Your task to perform on an android device: open app "Pinterest" (install if not already installed) Image 0: 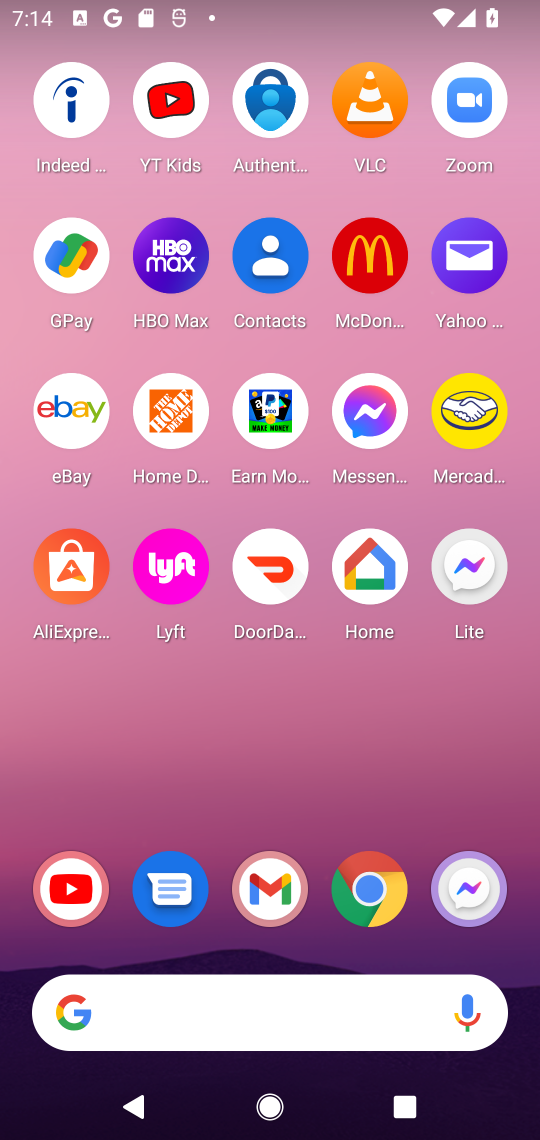
Step 0: press home button
Your task to perform on an android device: open app "Pinterest" (install if not already installed) Image 1: 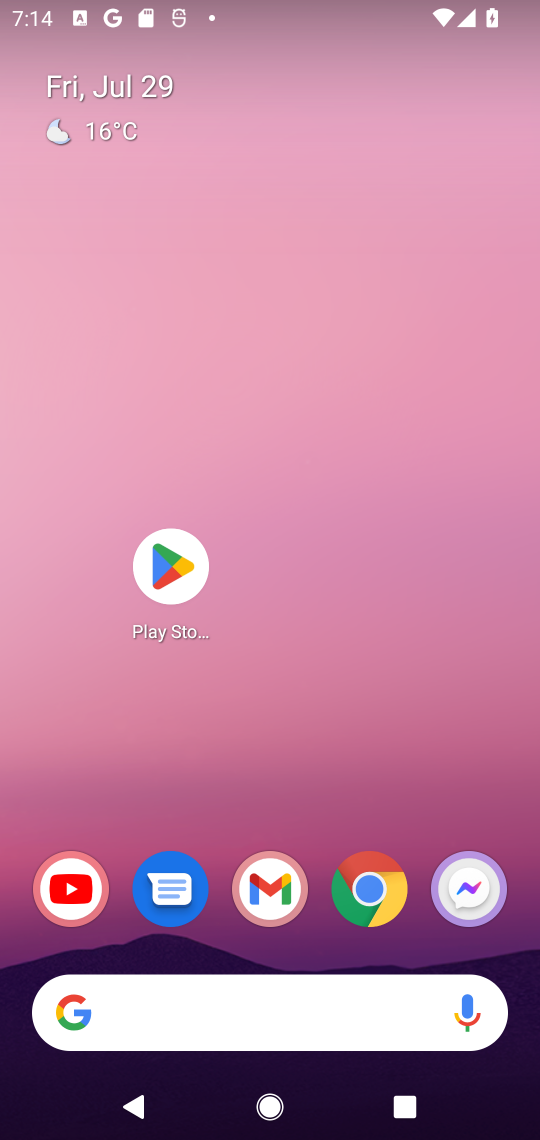
Step 1: click (176, 555)
Your task to perform on an android device: open app "Pinterest" (install if not already installed) Image 2: 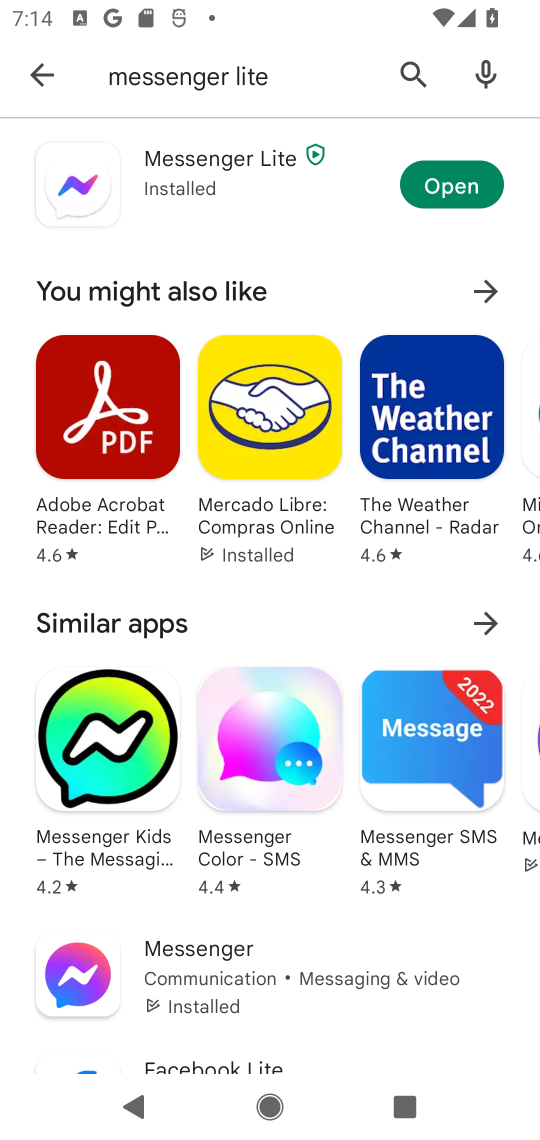
Step 2: click (411, 67)
Your task to perform on an android device: open app "Pinterest" (install if not already installed) Image 3: 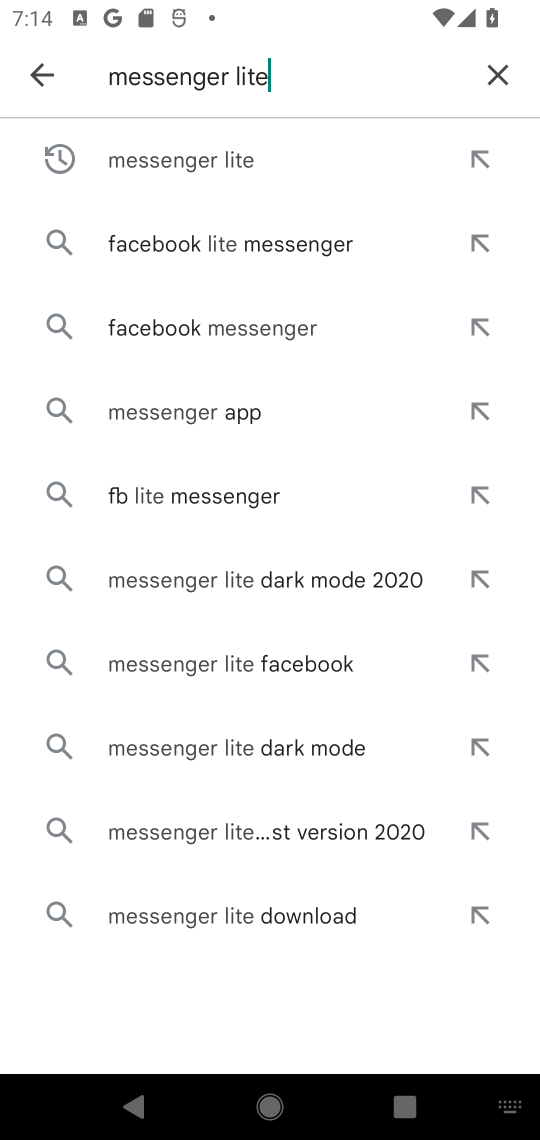
Step 3: click (495, 58)
Your task to perform on an android device: open app "Pinterest" (install if not already installed) Image 4: 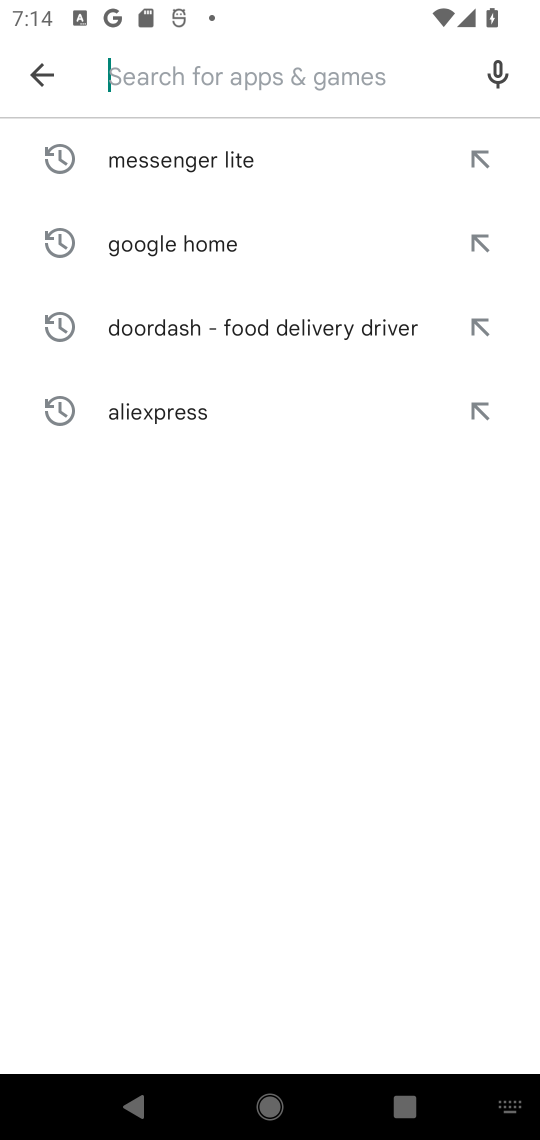
Step 4: type "Pinterest"
Your task to perform on an android device: open app "Pinterest" (install if not already installed) Image 5: 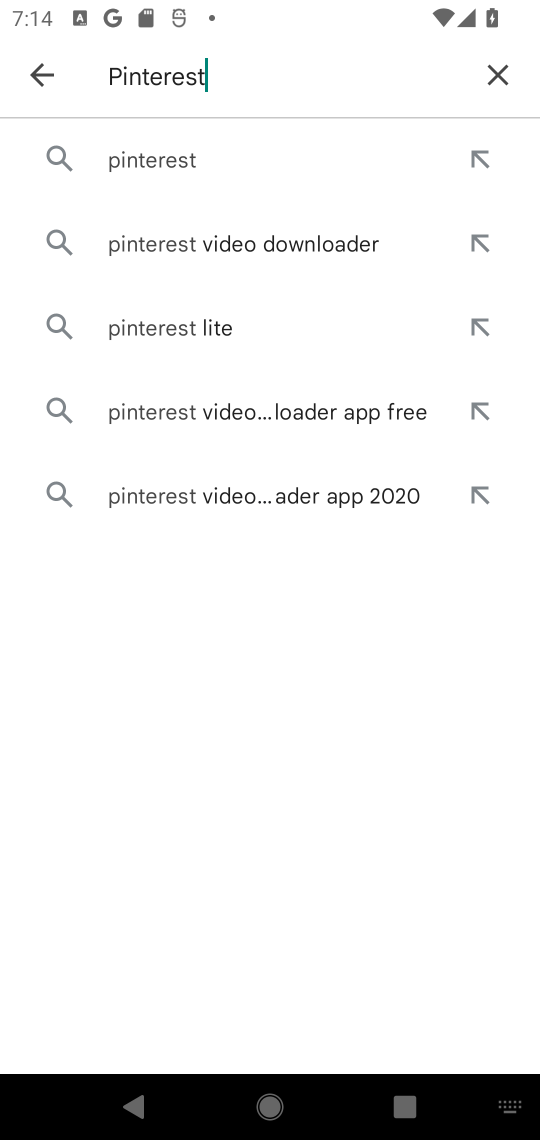
Step 5: click (155, 151)
Your task to perform on an android device: open app "Pinterest" (install if not already installed) Image 6: 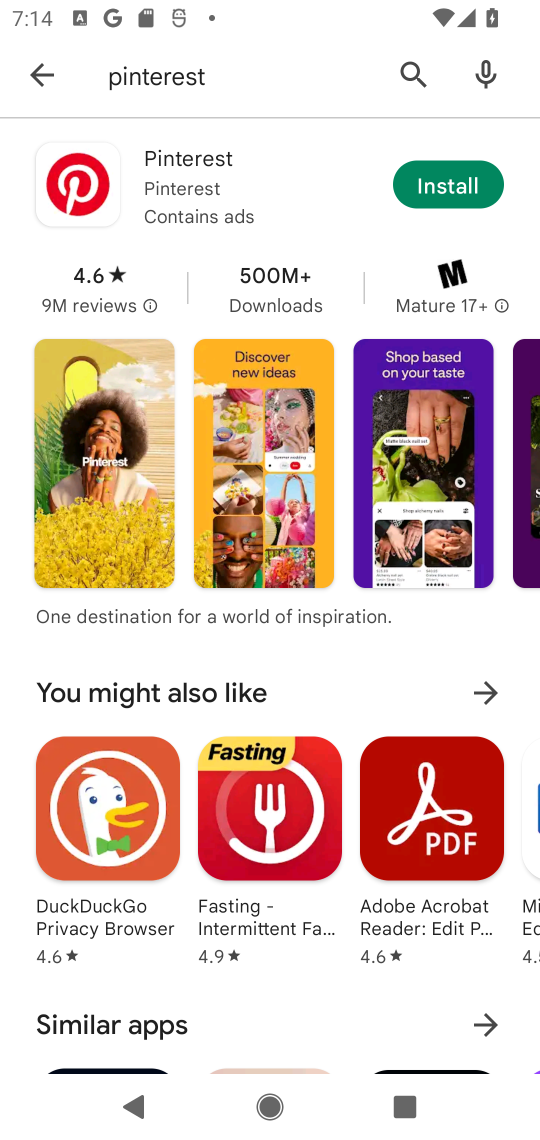
Step 6: click (452, 165)
Your task to perform on an android device: open app "Pinterest" (install if not already installed) Image 7: 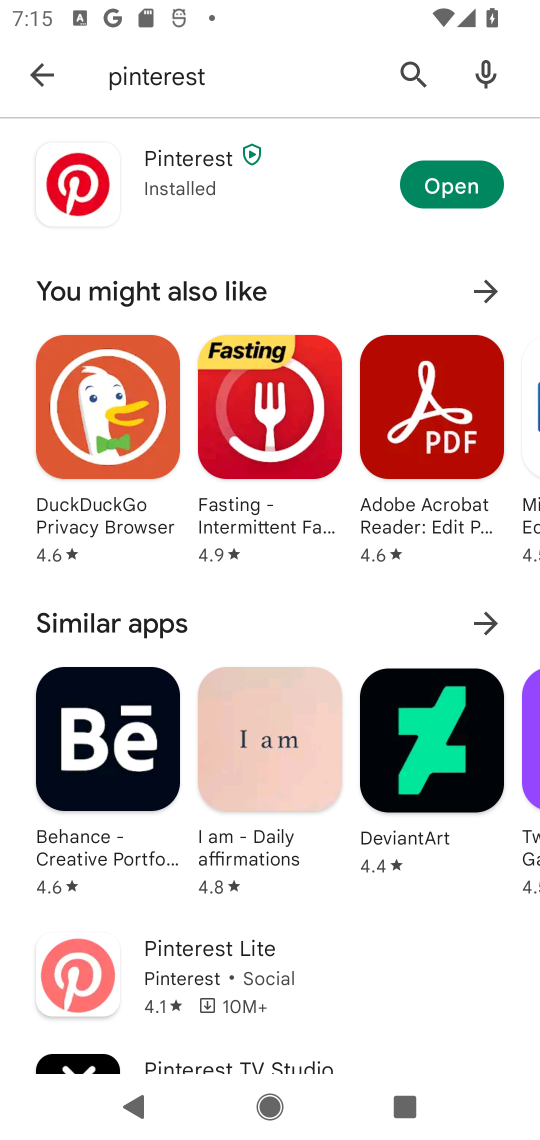
Step 7: click (465, 175)
Your task to perform on an android device: open app "Pinterest" (install if not already installed) Image 8: 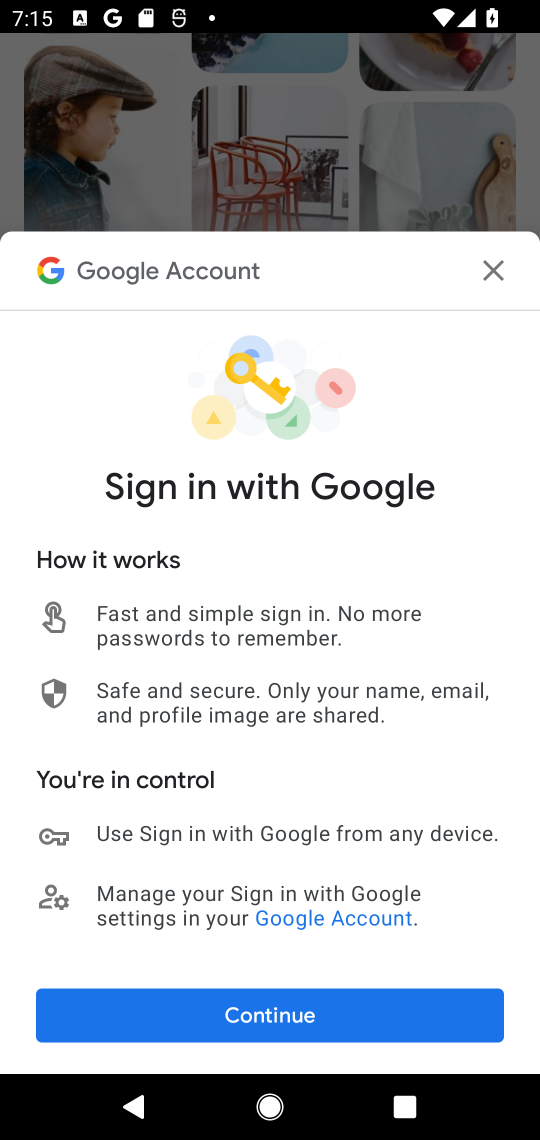
Step 8: task complete